Your task to perform on an android device: turn on data saver in the chrome app Image 0: 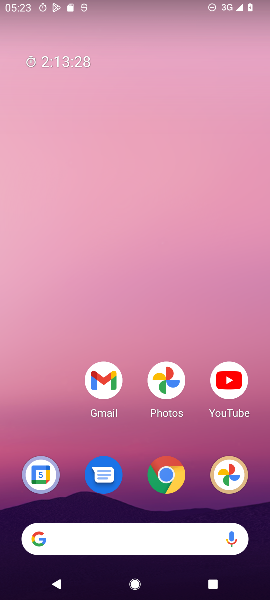
Step 0: press home button
Your task to perform on an android device: turn on data saver in the chrome app Image 1: 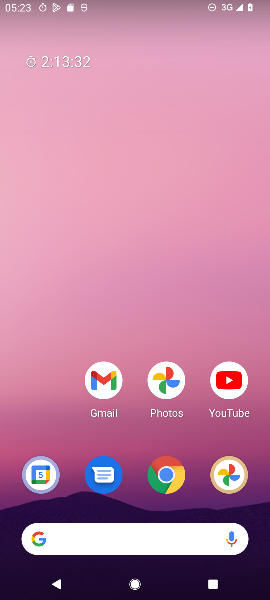
Step 1: drag from (54, 436) to (61, 192)
Your task to perform on an android device: turn on data saver in the chrome app Image 2: 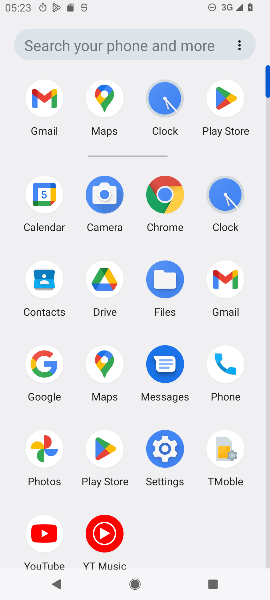
Step 2: click (179, 201)
Your task to perform on an android device: turn on data saver in the chrome app Image 3: 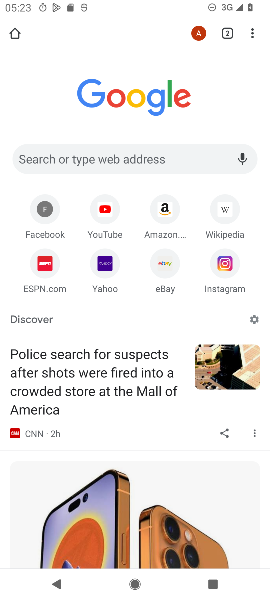
Step 3: click (252, 33)
Your task to perform on an android device: turn on data saver in the chrome app Image 4: 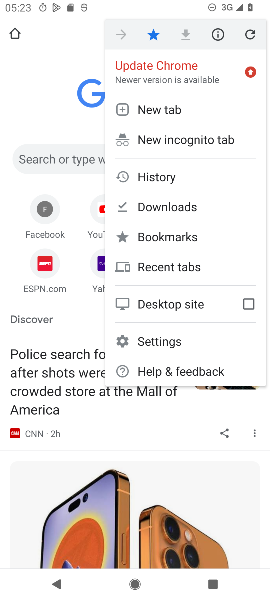
Step 4: click (156, 339)
Your task to perform on an android device: turn on data saver in the chrome app Image 5: 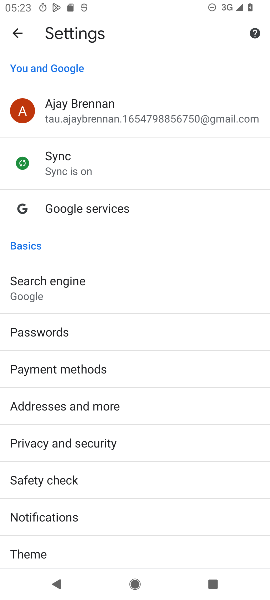
Step 5: drag from (185, 470) to (174, 373)
Your task to perform on an android device: turn on data saver in the chrome app Image 6: 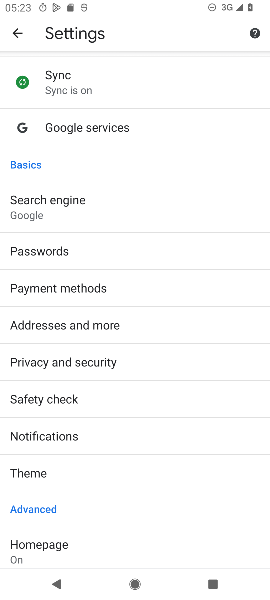
Step 6: drag from (198, 454) to (193, 350)
Your task to perform on an android device: turn on data saver in the chrome app Image 7: 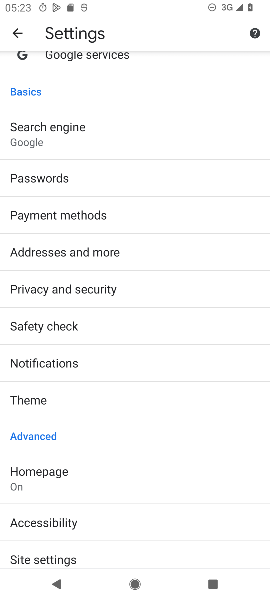
Step 7: drag from (198, 457) to (196, 364)
Your task to perform on an android device: turn on data saver in the chrome app Image 8: 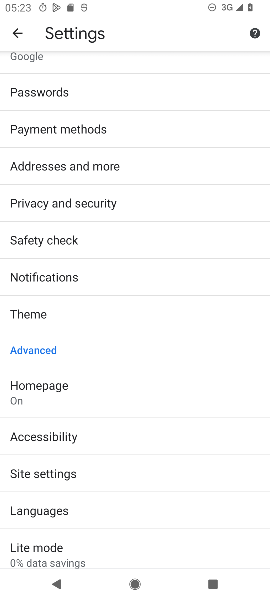
Step 8: drag from (179, 483) to (177, 362)
Your task to perform on an android device: turn on data saver in the chrome app Image 9: 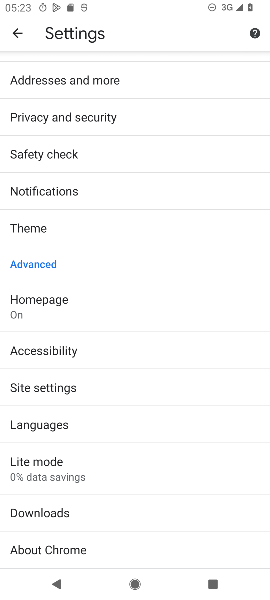
Step 9: click (151, 474)
Your task to perform on an android device: turn on data saver in the chrome app Image 10: 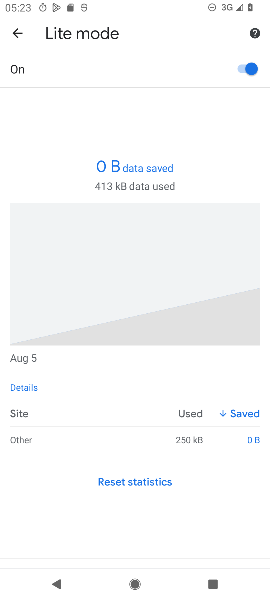
Step 10: task complete